Your task to perform on an android device: Search for sushi restaurants on Maps Image 0: 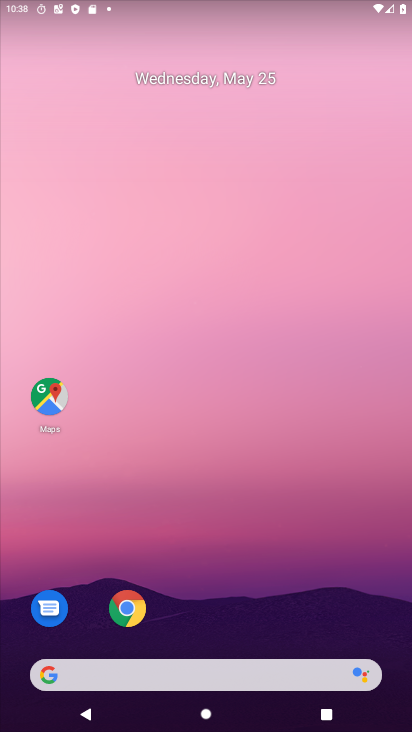
Step 0: click (48, 379)
Your task to perform on an android device: Search for sushi restaurants on Maps Image 1: 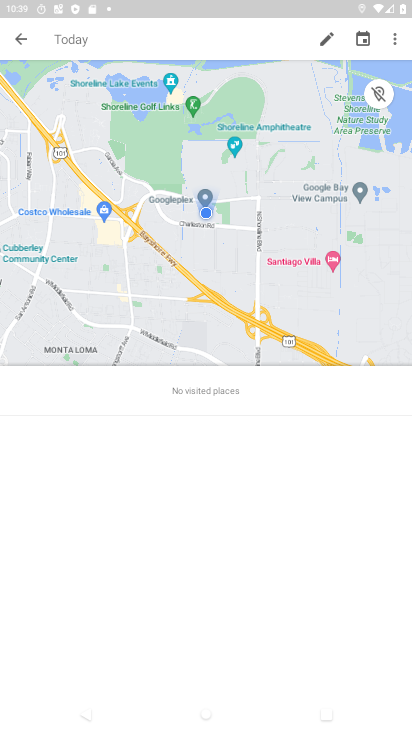
Step 1: click (16, 43)
Your task to perform on an android device: Search for sushi restaurants on Maps Image 2: 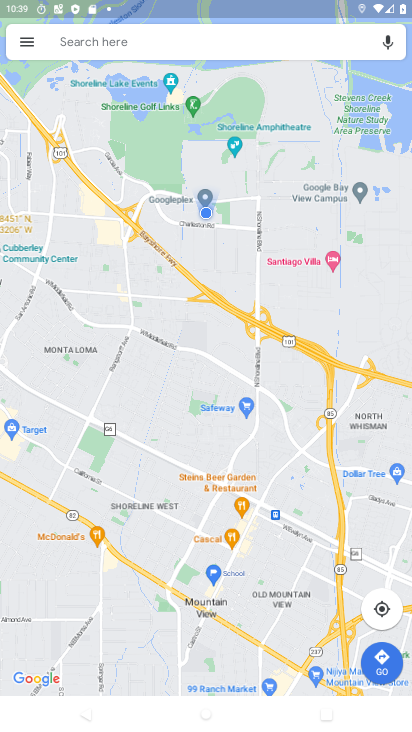
Step 2: click (177, 55)
Your task to perform on an android device: Search for sushi restaurants on Maps Image 3: 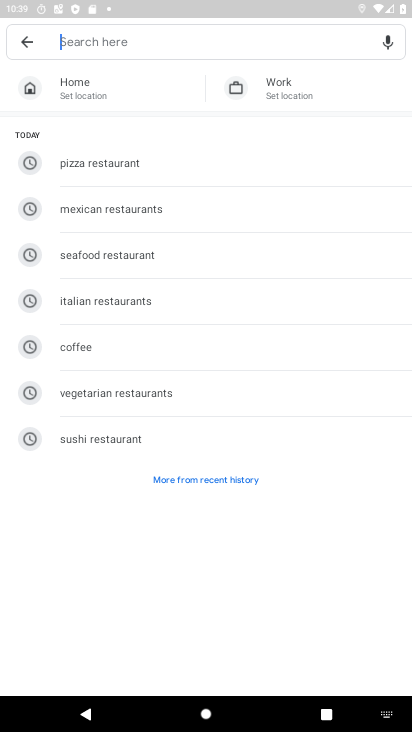
Step 3: click (112, 440)
Your task to perform on an android device: Search for sushi restaurants on Maps Image 4: 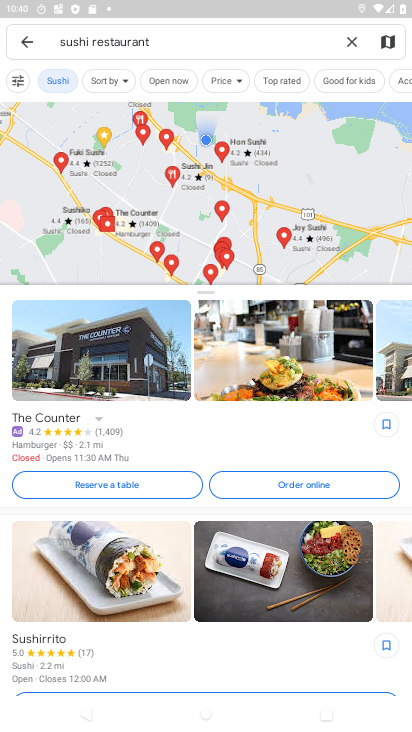
Step 4: task complete